Your task to perform on an android device: Is it going to rain tomorrow? Image 0: 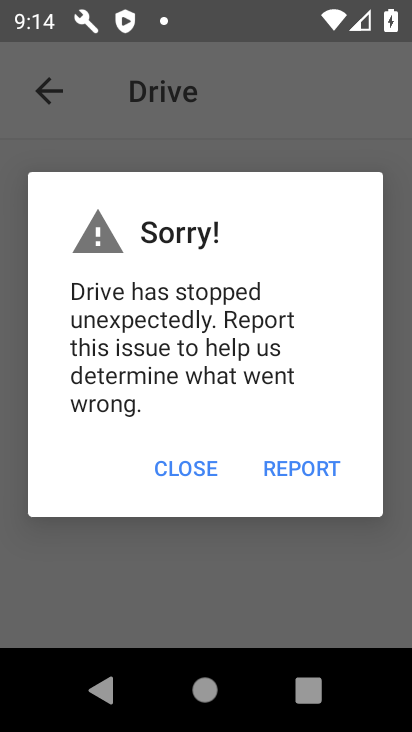
Step 0: click (169, 466)
Your task to perform on an android device: Is it going to rain tomorrow? Image 1: 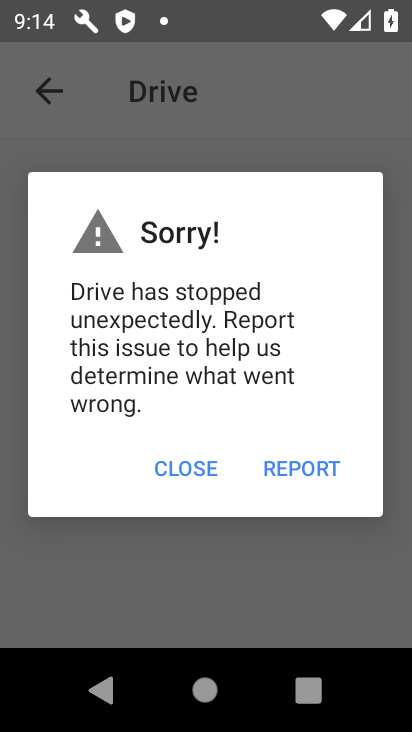
Step 1: click (169, 466)
Your task to perform on an android device: Is it going to rain tomorrow? Image 2: 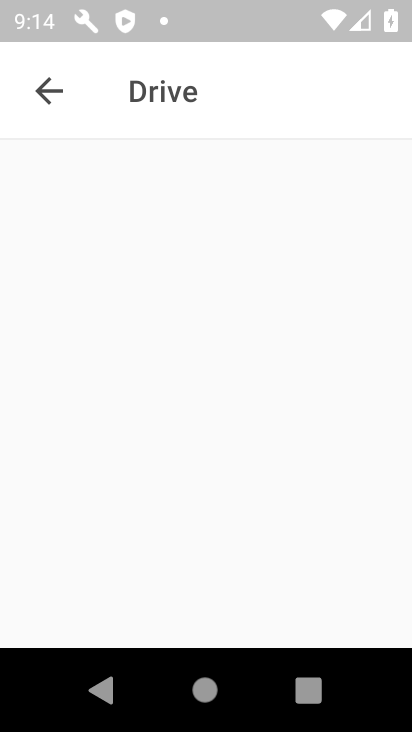
Step 2: click (170, 465)
Your task to perform on an android device: Is it going to rain tomorrow? Image 3: 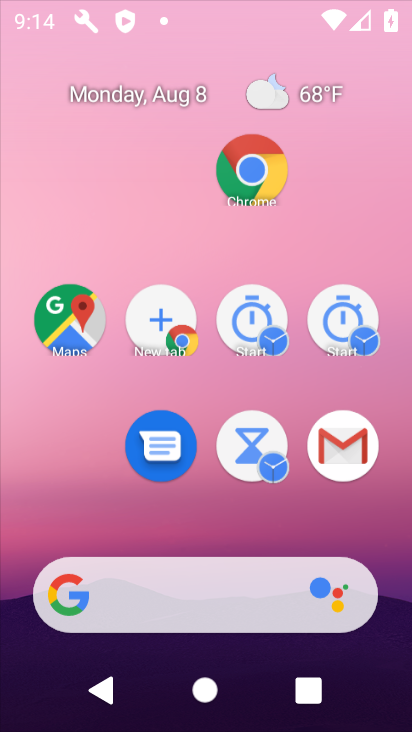
Step 3: click (172, 464)
Your task to perform on an android device: Is it going to rain tomorrow? Image 4: 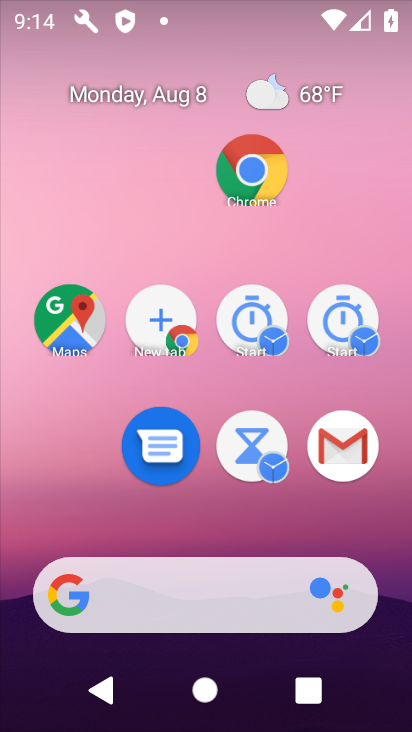
Step 4: drag from (218, 545) to (163, 185)
Your task to perform on an android device: Is it going to rain tomorrow? Image 5: 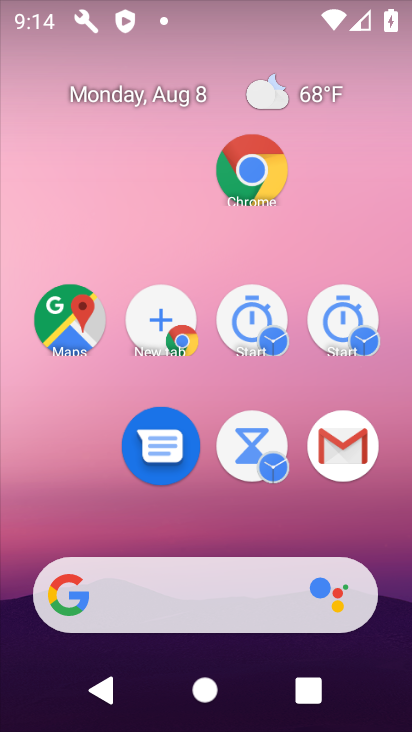
Step 5: drag from (220, 376) to (216, 313)
Your task to perform on an android device: Is it going to rain tomorrow? Image 6: 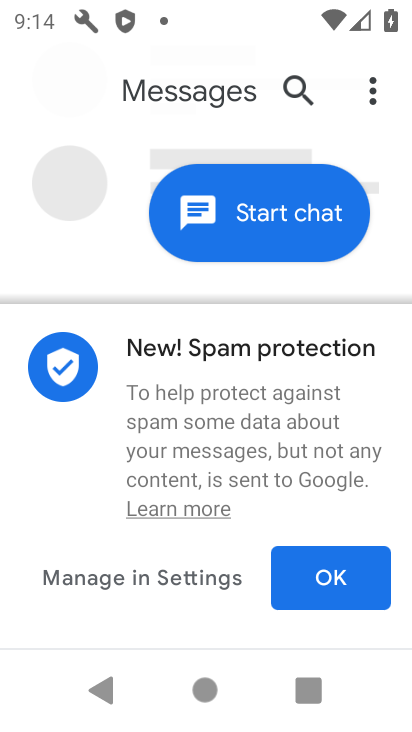
Step 6: press back button
Your task to perform on an android device: Is it going to rain tomorrow? Image 7: 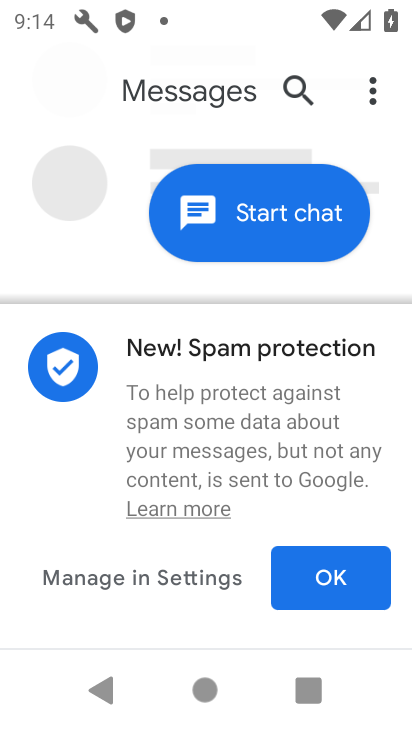
Step 7: press back button
Your task to perform on an android device: Is it going to rain tomorrow? Image 8: 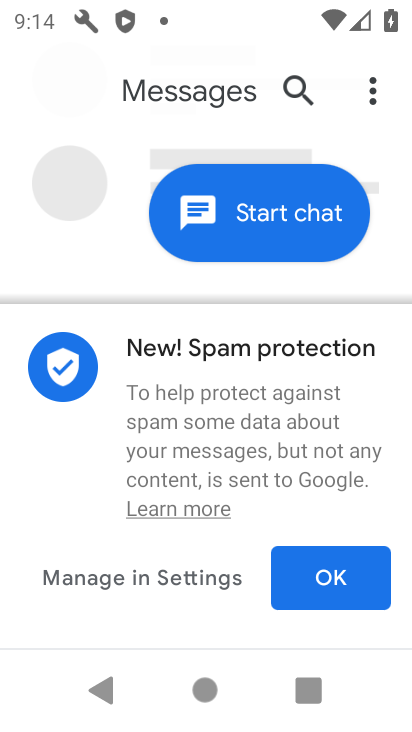
Step 8: press back button
Your task to perform on an android device: Is it going to rain tomorrow? Image 9: 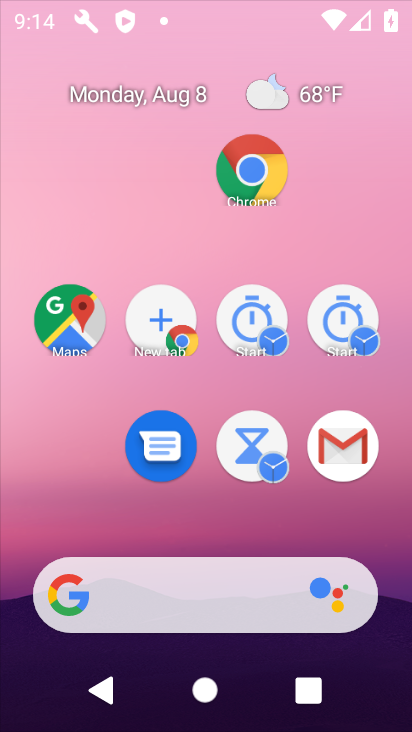
Step 9: press back button
Your task to perform on an android device: Is it going to rain tomorrow? Image 10: 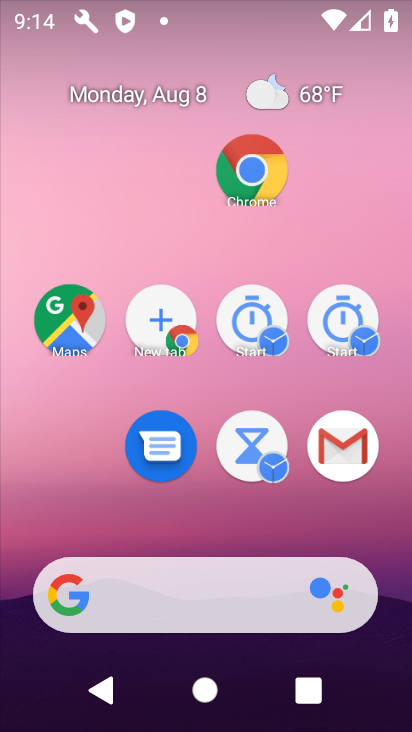
Step 10: press home button
Your task to perform on an android device: Is it going to rain tomorrow? Image 11: 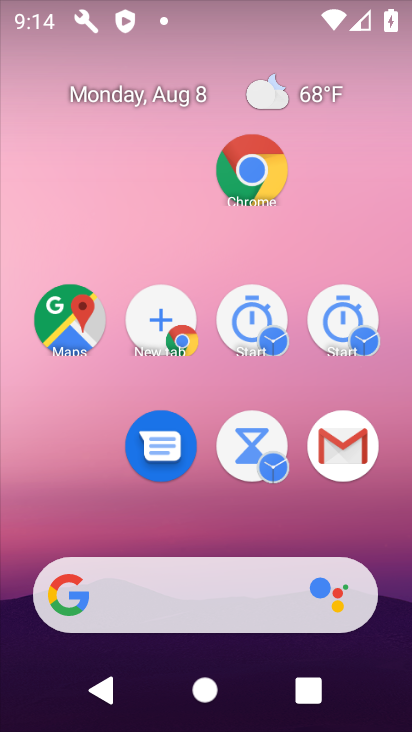
Step 11: drag from (241, 279) to (217, 65)
Your task to perform on an android device: Is it going to rain tomorrow? Image 12: 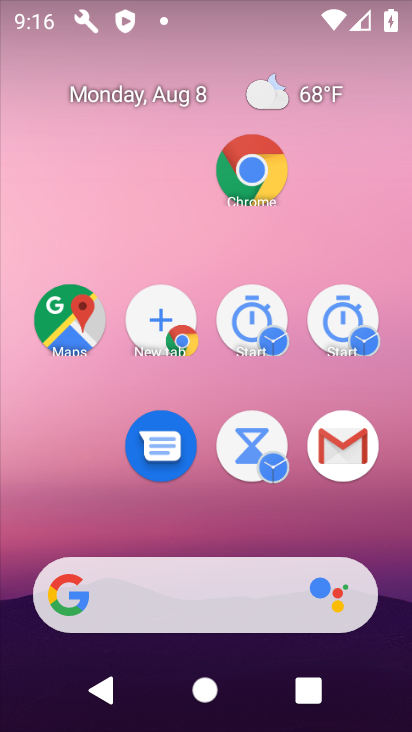
Step 12: drag from (254, 592) to (214, 179)
Your task to perform on an android device: Is it going to rain tomorrow? Image 13: 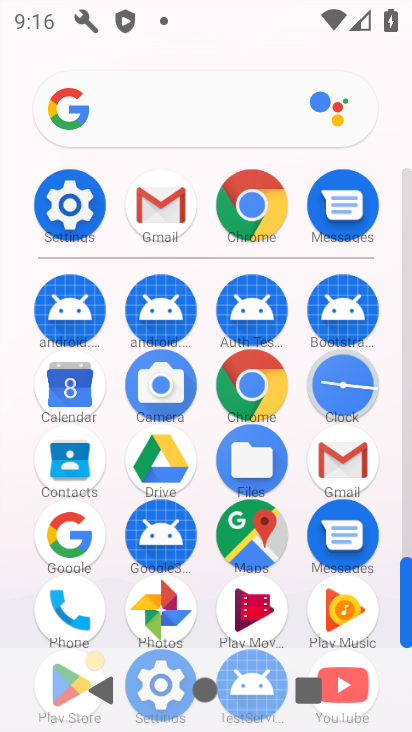
Step 13: click (243, 208)
Your task to perform on an android device: Is it going to rain tomorrow? Image 14: 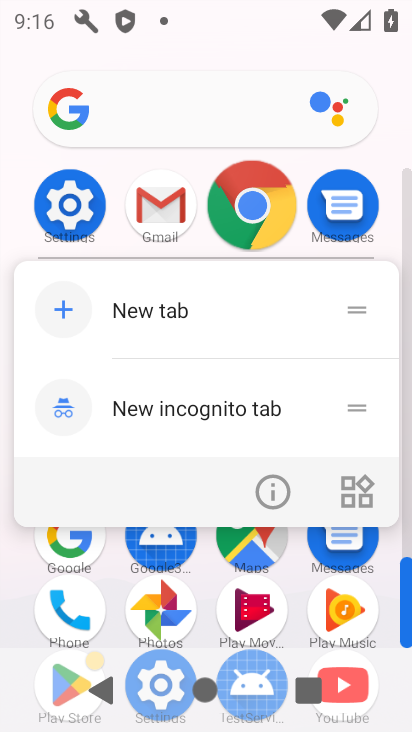
Step 14: click (246, 202)
Your task to perform on an android device: Is it going to rain tomorrow? Image 15: 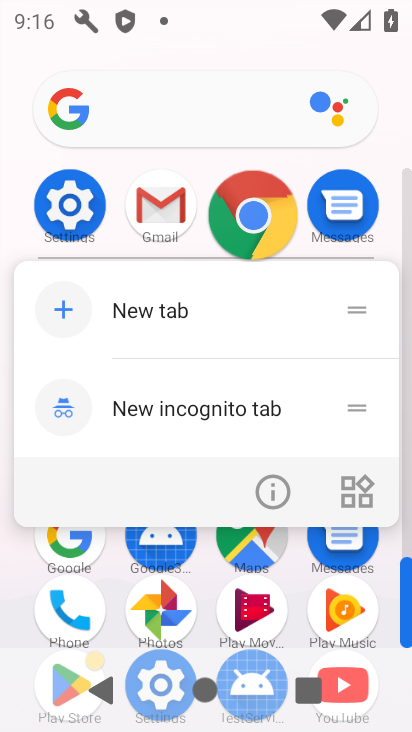
Step 15: click (248, 220)
Your task to perform on an android device: Is it going to rain tomorrow? Image 16: 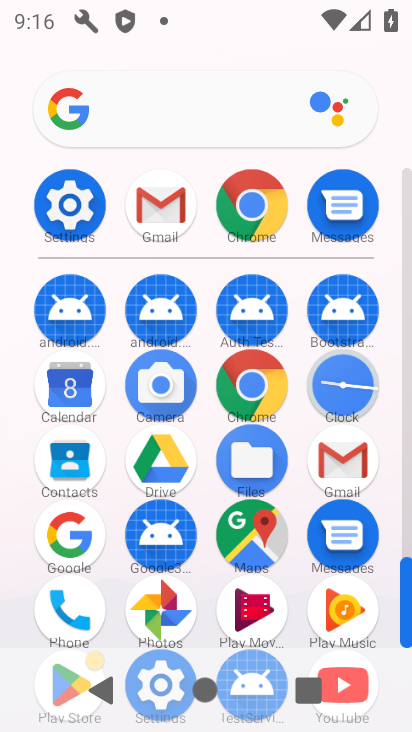
Step 16: click (249, 220)
Your task to perform on an android device: Is it going to rain tomorrow? Image 17: 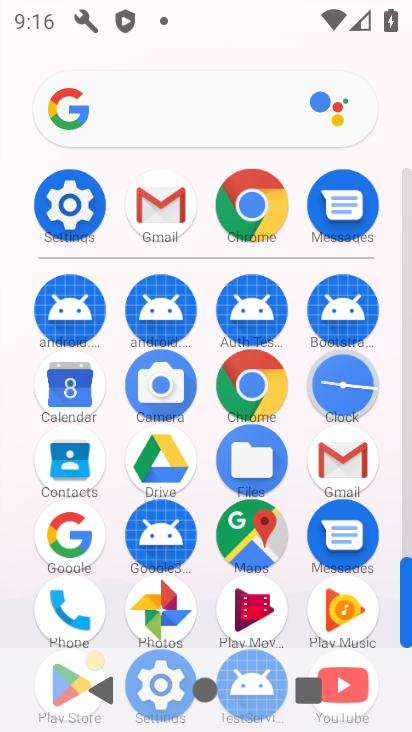
Step 17: click (252, 222)
Your task to perform on an android device: Is it going to rain tomorrow? Image 18: 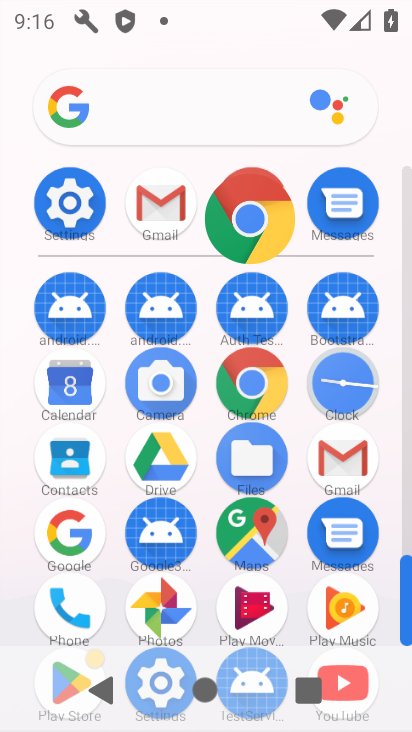
Step 18: click (249, 220)
Your task to perform on an android device: Is it going to rain tomorrow? Image 19: 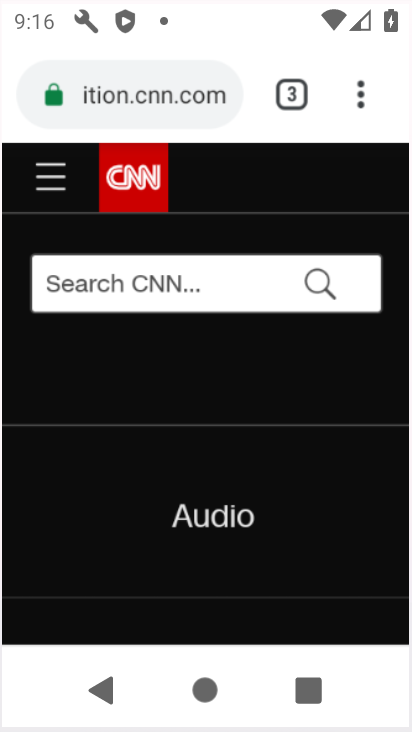
Step 19: click (245, 219)
Your task to perform on an android device: Is it going to rain tomorrow? Image 20: 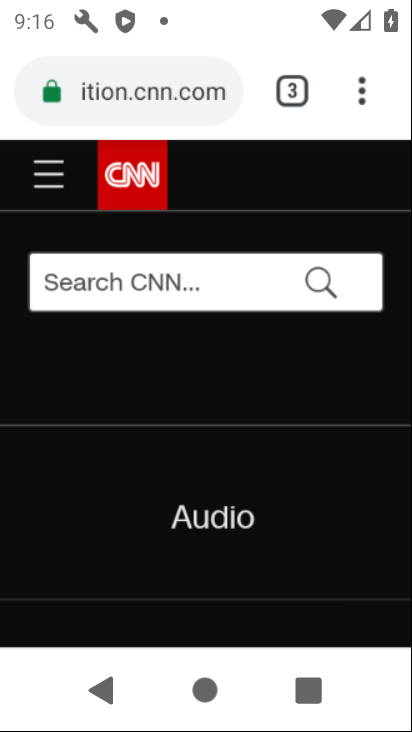
Step 20: click (246, 220)
Your task to perform on an android device: Is it going to rain tomorrow? Image 21: 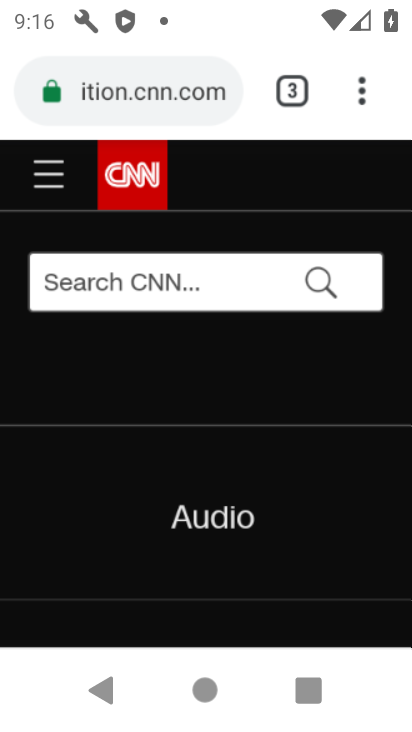
Step 21: drag from (364, 92) to (48, 173)
Your task to perform on an android device: Is it going to rain tomorrow? Image 22: 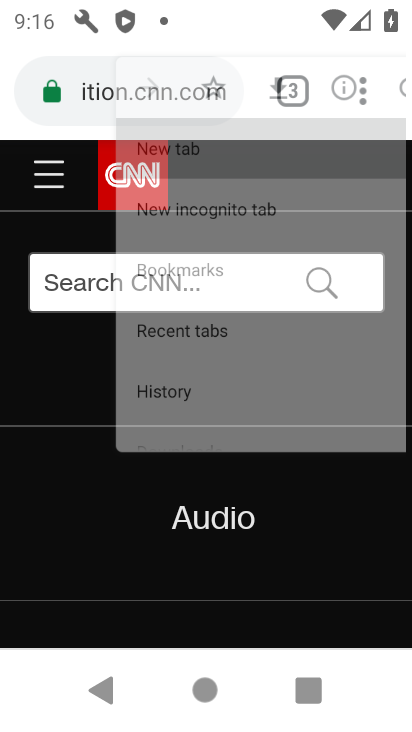
Step 22: click (48, 173)
Your task to perform on an android device: Is it going to rain tomorrow? Image 23: 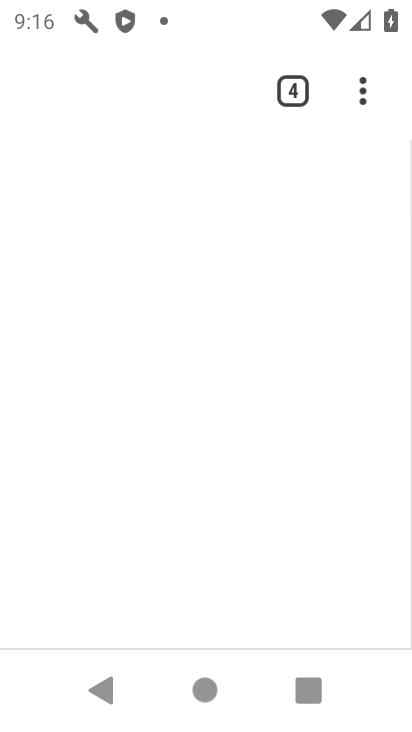
Step 23: click (51, 174)
Your task to perform on an android device: Is it going to rain tomorrow? Image 24: 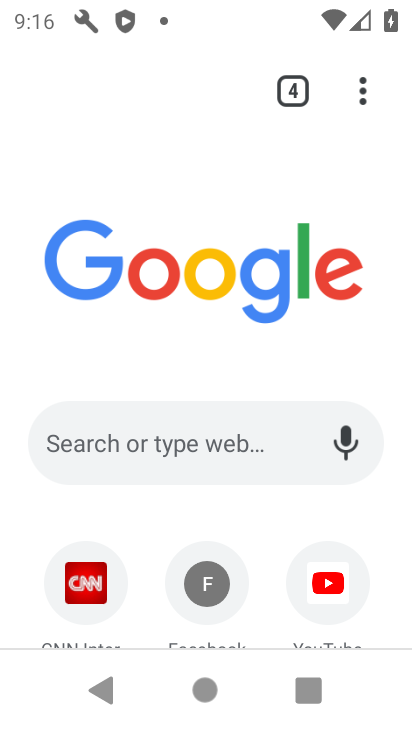
Step 24: click (76, 433)
Your task to perform on an android device: Is it going to rain tomorrow? Image 25: 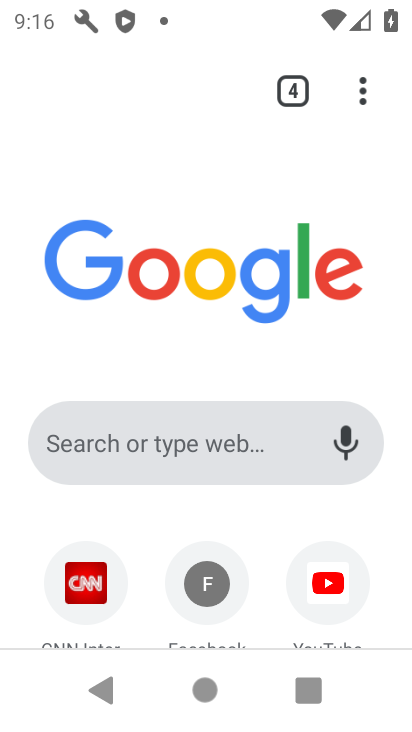
Step 25: click (76, 433)
Your task to perform on an android device: Is it going to rain tomorrow? Image 26: 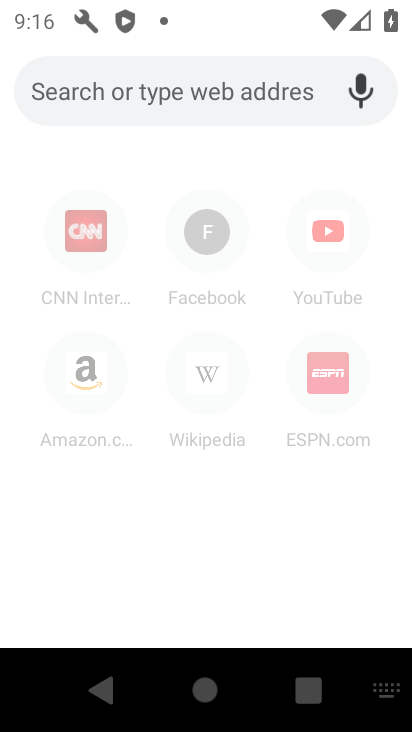
Step 26: type "is it going to rain tomorrow"
Your task to perform on an android device: Is it going to rain tomorrow? Image 27: 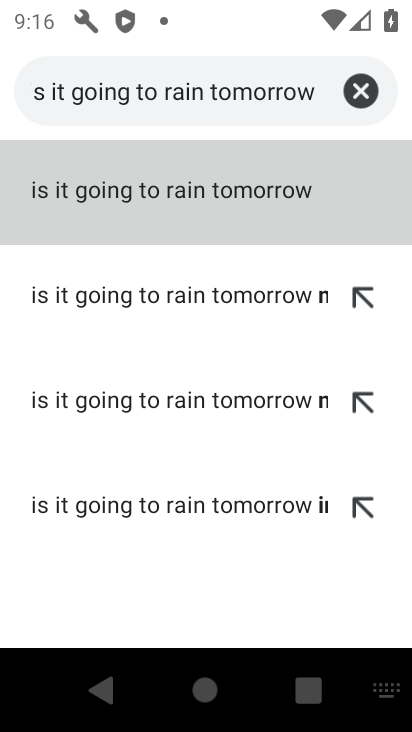
Step 27: click (197, 201)
Your task to perform on an android device: Is it going to rain tomorrow? Image 28: 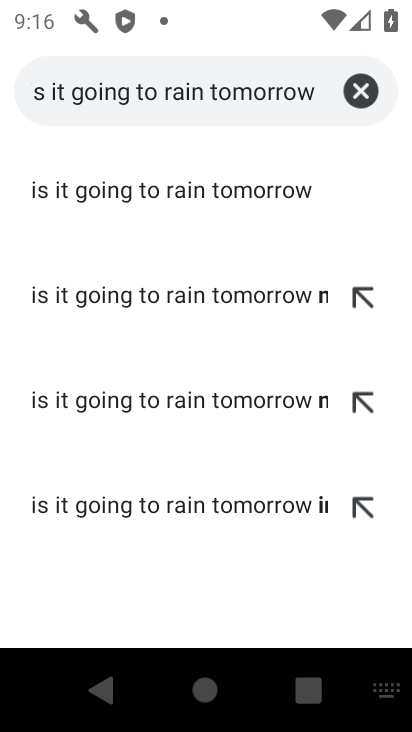
Step 28: click (197, 201)
Your task to perform on an android device: Is it going to rain tomorrow? Image 29: 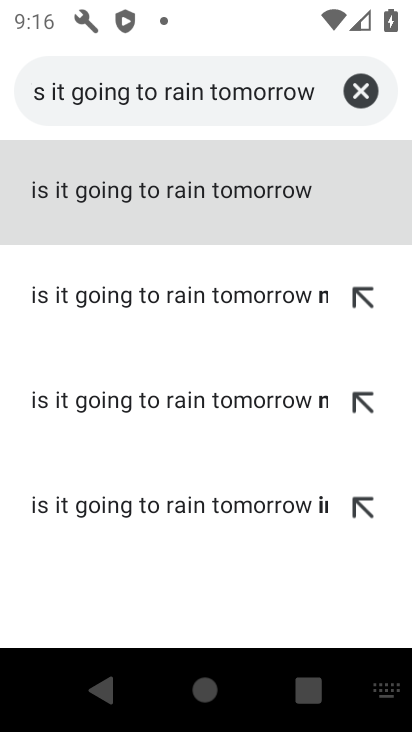
Step 29: click (197, 201)
Your task to perform on an android device: Is it going to rain tomorrow? Image 30: 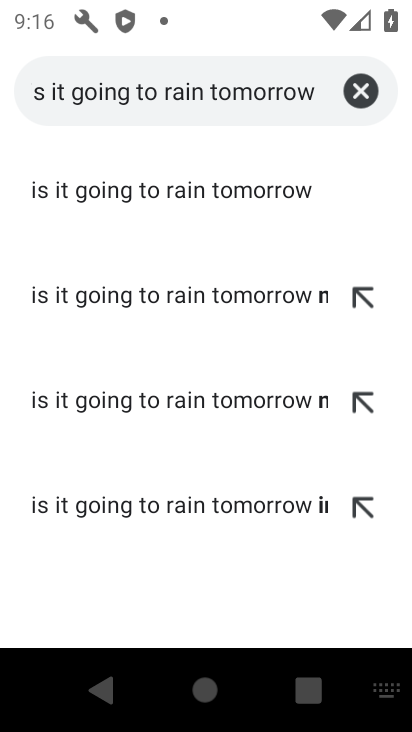
Step 30: click (197, 201)
Your task to perform on an android device: Is it going to rain tomorrow? Image 31: 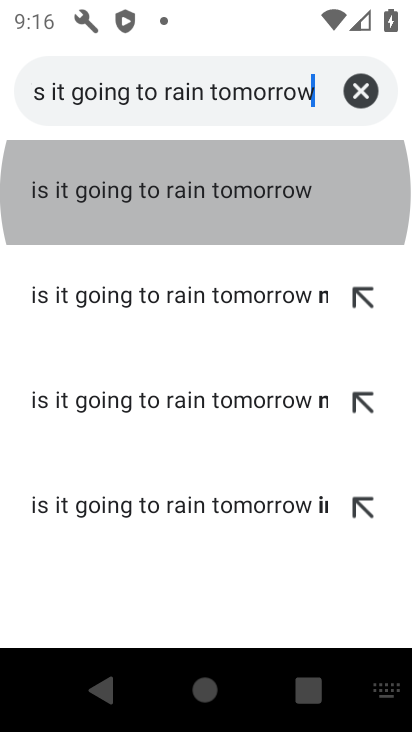
Step 31: click (196, 201)
Your task to perform on an android device: Is it going to rain tomorrow? Image 32: 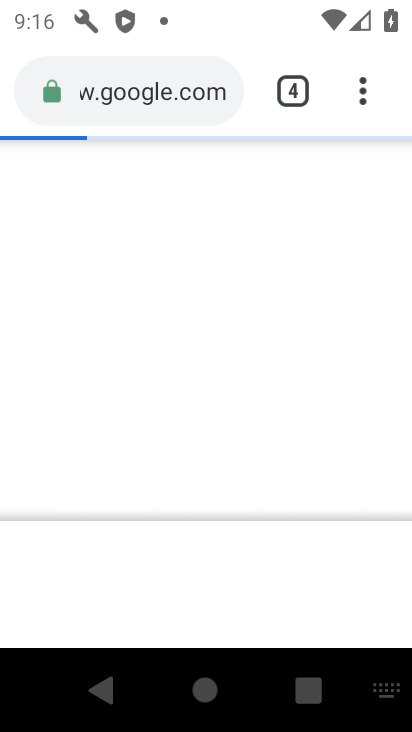
Step 32: click (196, 201)
Your task to perform on an android device: Is it going to rain tomorrow? Image 33: 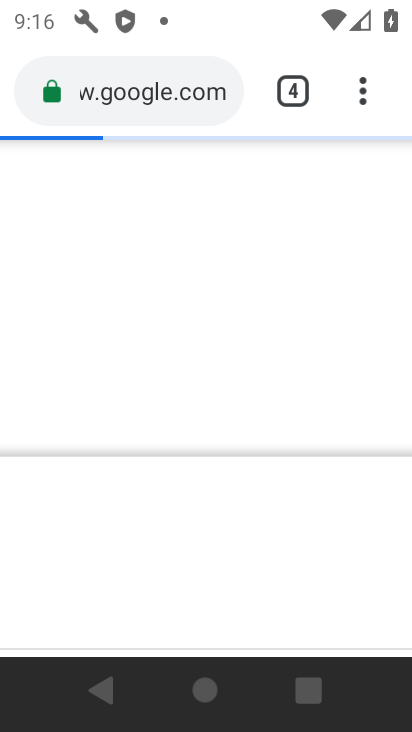
Step 33: click (197, 202)
Your task to perform on an android device: Is it going to rain tomorrow? Image 34: 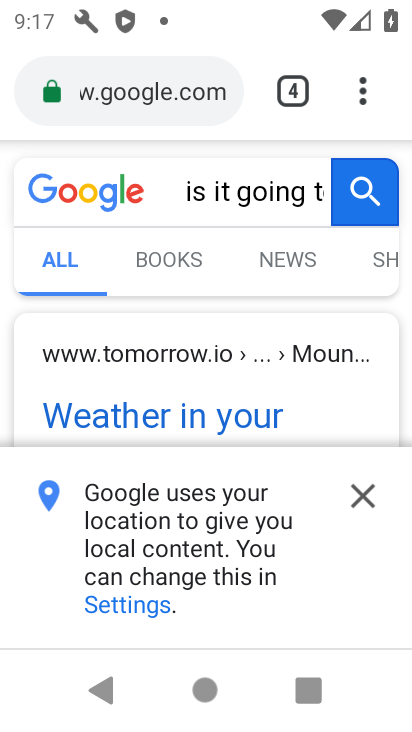
Step 34: task complete